Your task to perform on an android device: turn on showing notifications on the lock screen Image 0: 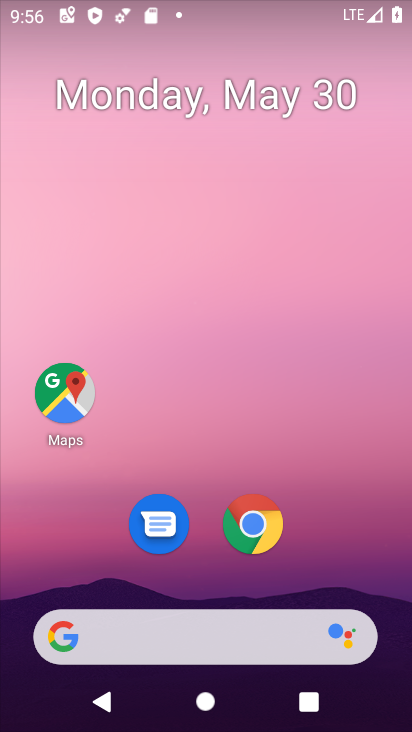
Step 0: drag from (290, 470) to (244, 21)
Your task to perform on an android device: turn on showing notifications on the lock screen Image 1: 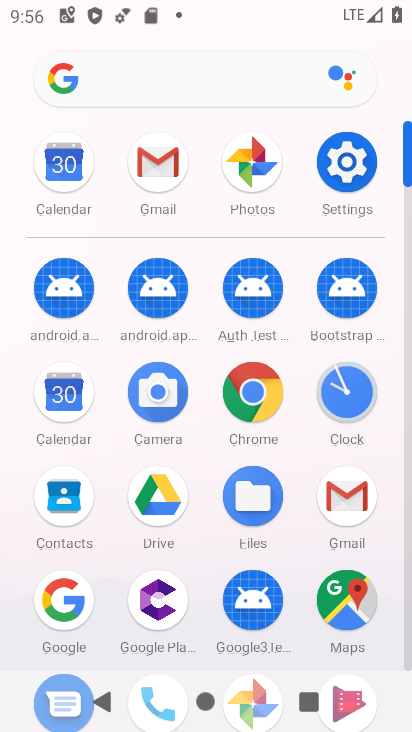
Step 1: click (345, 158)
Your task to perform on an android device: turn on showing notifications on the lock screen Image 2: 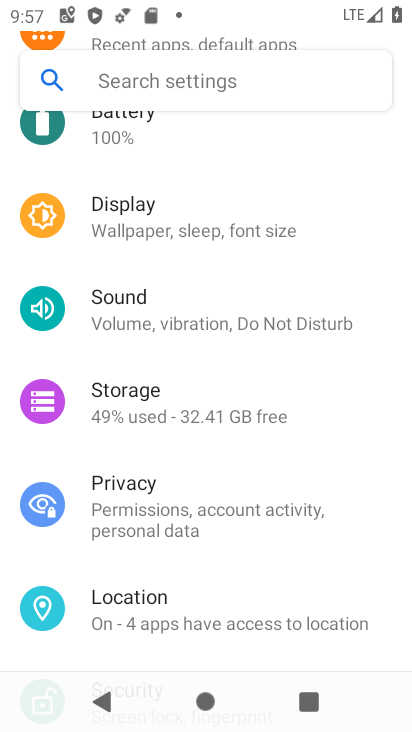
Step 2: drag from (235, 200) to (262, 497)
Your task to perform on an android device: turn on showing notifications on the lock screen Image 3: 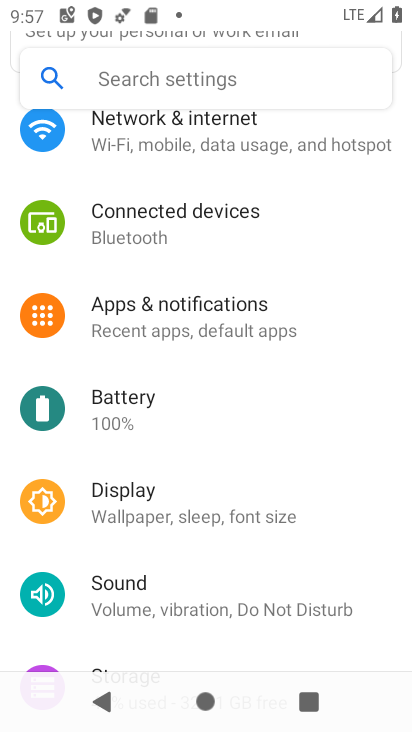
Step 3: click (233, 318)
Your task to perform on an android device: turn on showing notifications on the lock screen Image 4: 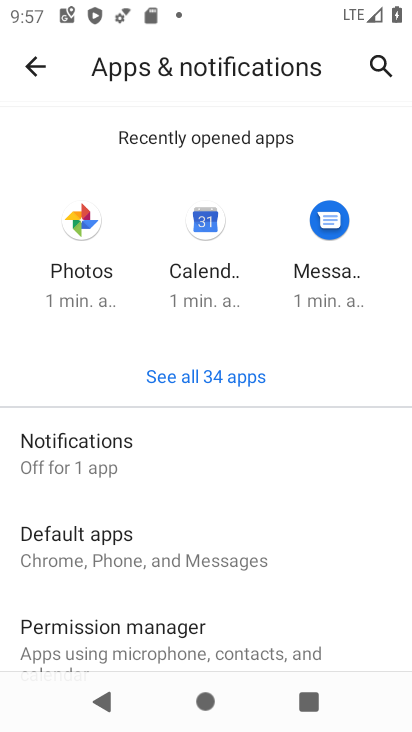
Step 4: click (208, 465)
Your task to perform on an android device: turn on showing notifications on the lock screen Image 5: 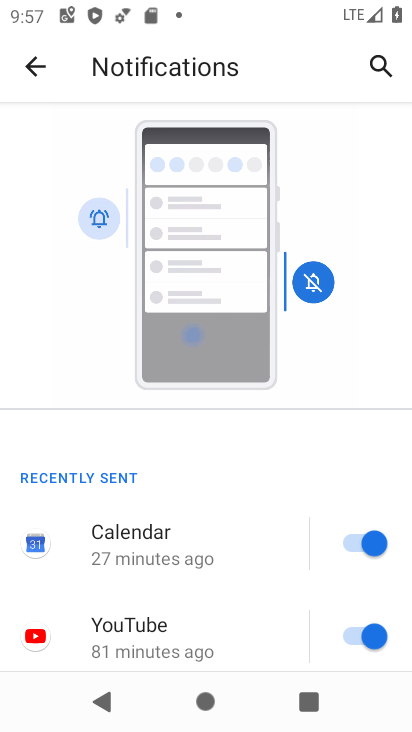
Step 5: task complete